Your task to perform on an android device: Open Reddit.com Image 0: 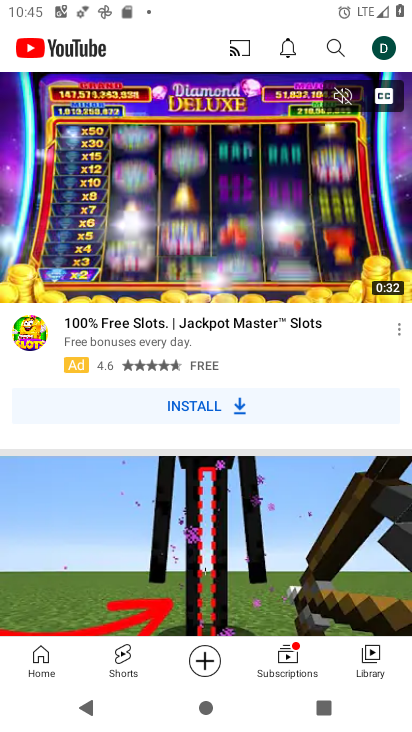
Step 0: press home button
Your task to perform on an android device: Open Reddit.com Image 1: 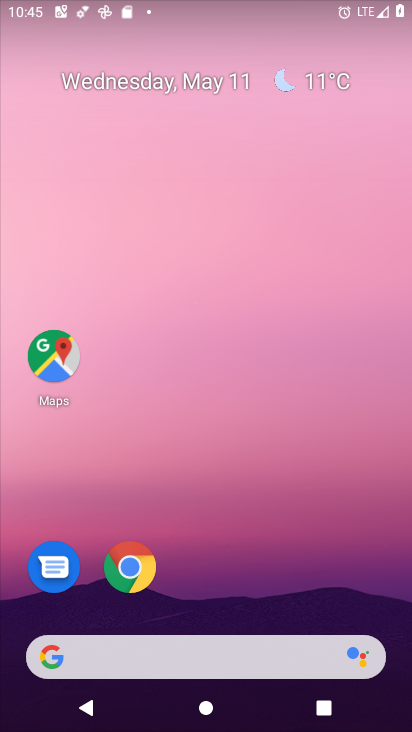
Step 1: click (148, 569)
Your task to perform on an android device: Open Reddit.com Image 2: 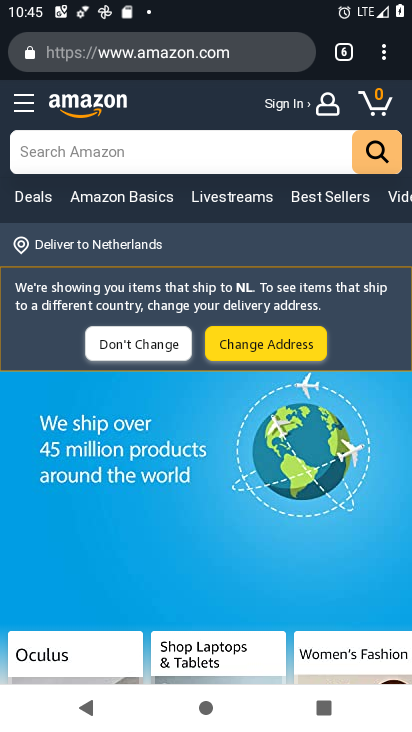
Step 2: click (334, 45)
Your task to perform on an android device: Open Reddit.com Image 3: 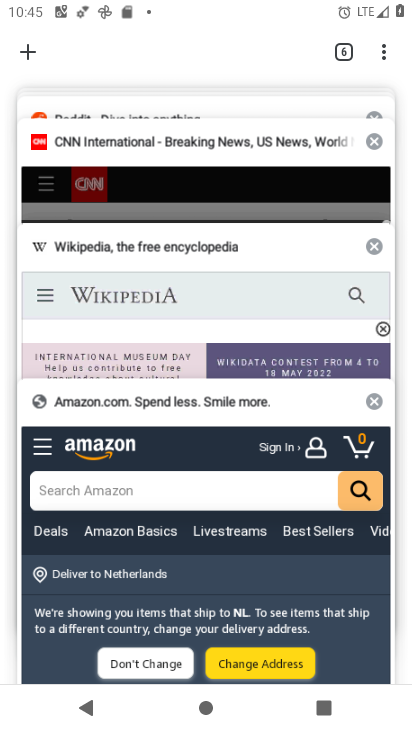
Step 3: click (74, 109)
Your task to perform on an android device: Open Reddit.com Image 4: 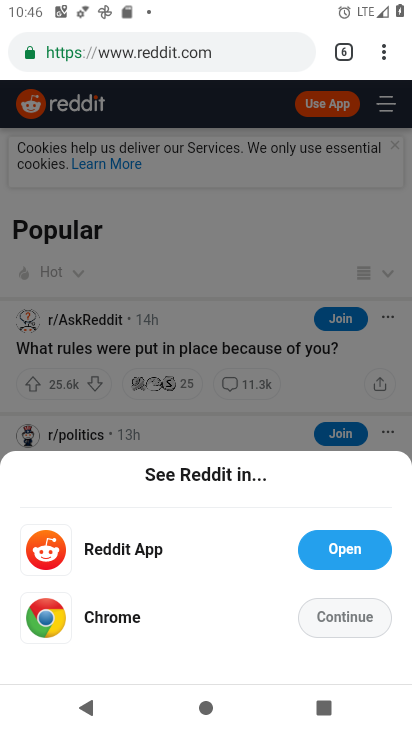
Step 4: task complete